Your task to perform on an android device: Go to wifi settings Image 0: 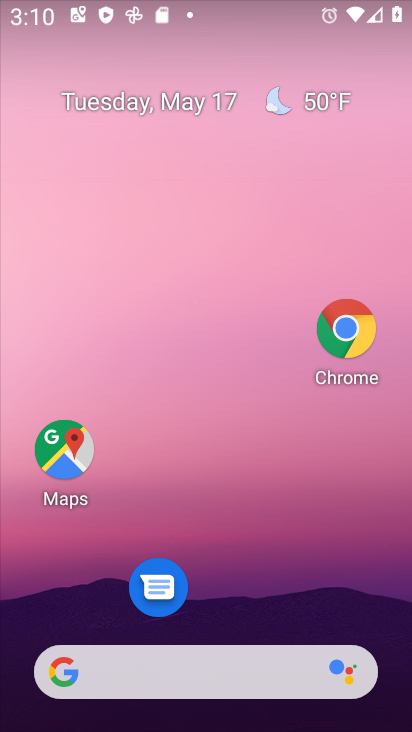
Step 0: drag from (225, 625) to (347, 76)
Your task to perform on an android device: Go to wifi settings Image 1: 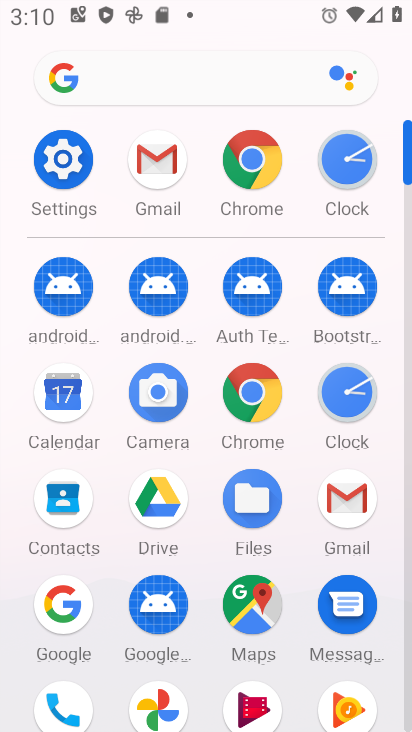
Step 1: click (74, 179)
Your task to perform on an android device: Go to wifi settings Image 2: 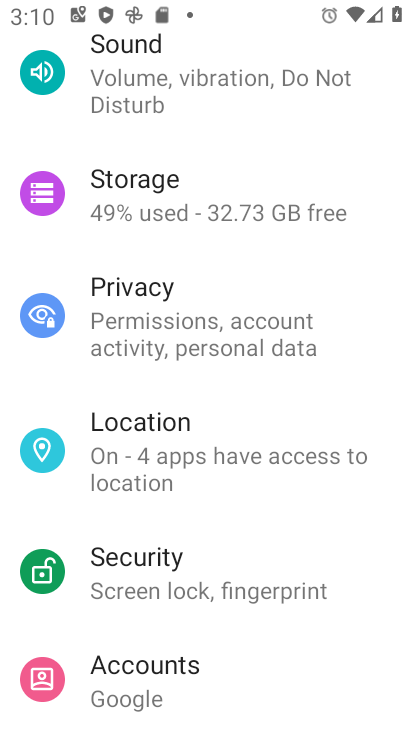
Step 2: drag from (193, 168) to (176, 531)
Your task to perform on an android device: Go to wifi settings Image 3: 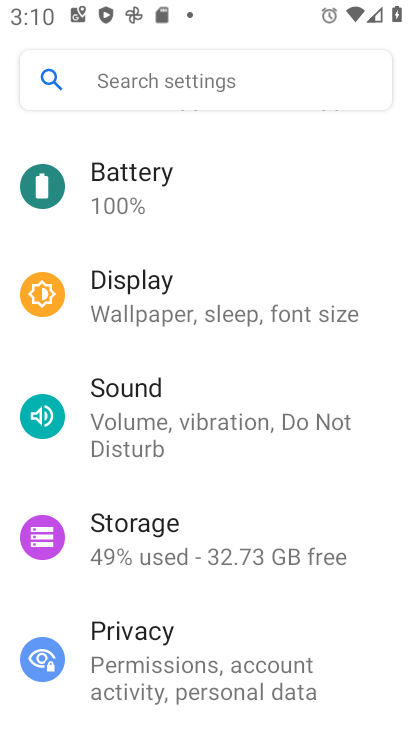
Step 3: drag from (210, 269) to (191, 587)
Your task to perform on an android device: Go to wifi settings Image 4: 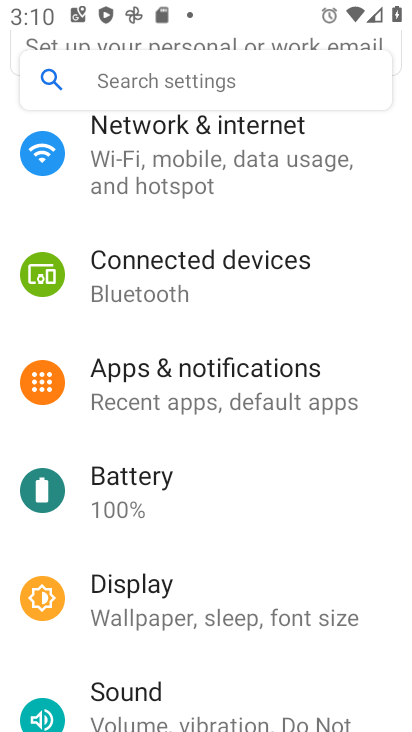
Step 4: click (209, 138)
Your task to perform on an android device: Go to wifi settings Image 5: 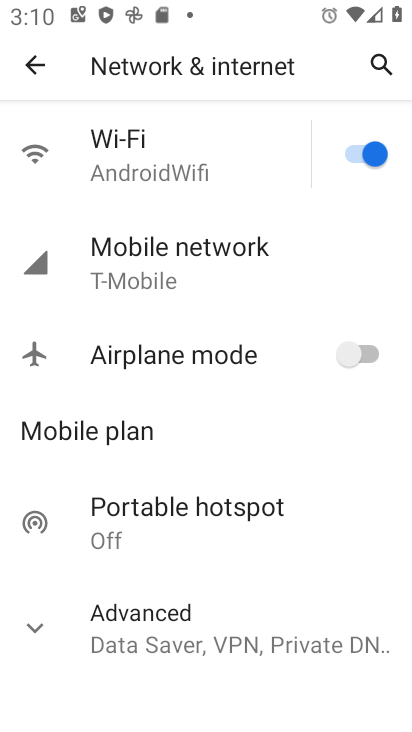
Step 5: task complete